Your task to perform on an android device: Go to Android settings Image 0: 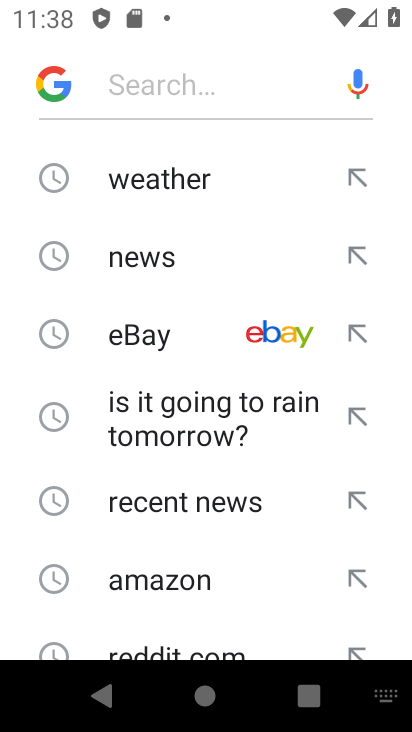
Step 0: press home button
Your task to perform on an android device: Go to Android settings Image 1: 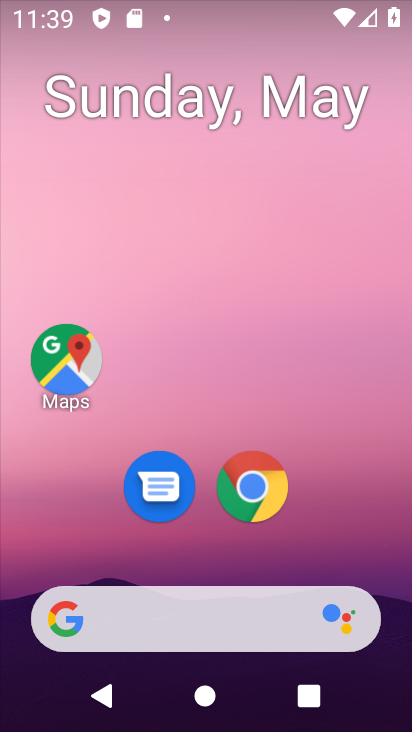
Step 1: drag from (345, 532) to (410, 257)
Your task to perform on an android device: Go to Android settings Image 2: 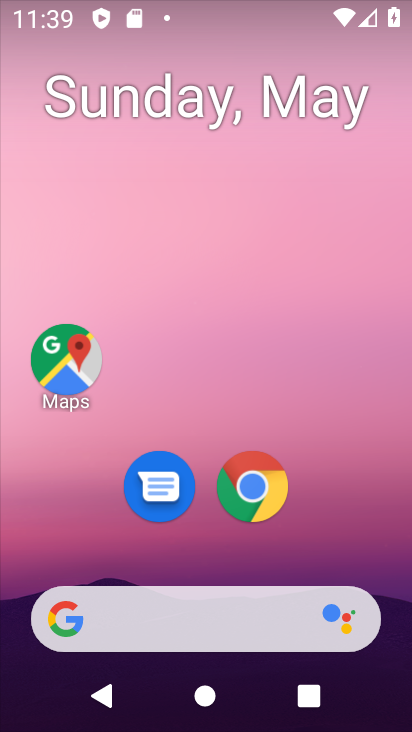
Step 2: drag from (342, 551) to (411, 183)
Your task to perform on an android device: Go to Android settings Image 3: 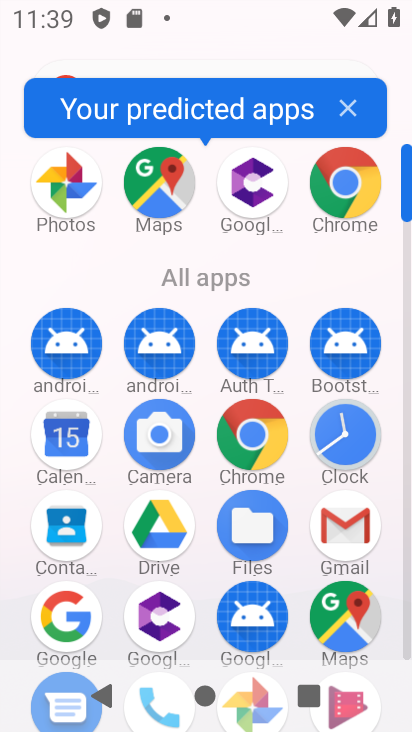
Step 3: drag from (290, 547) to (401, 238)
Your task to perform on an android device: Go to Android settings Image 4: 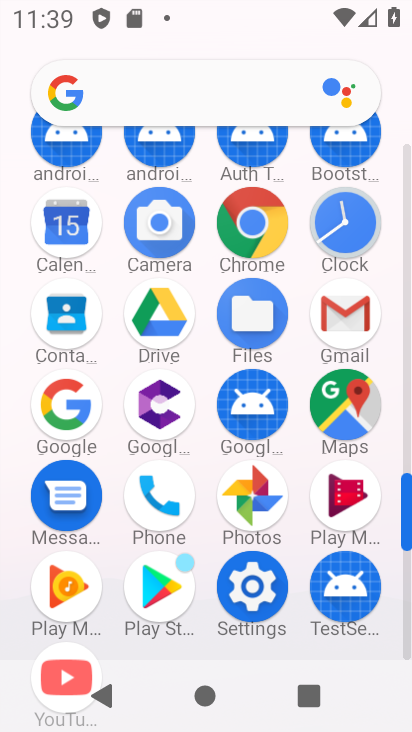
Step 4: click (244, 600)
Your task to perform on an android device: Go to Android settings Image 5: 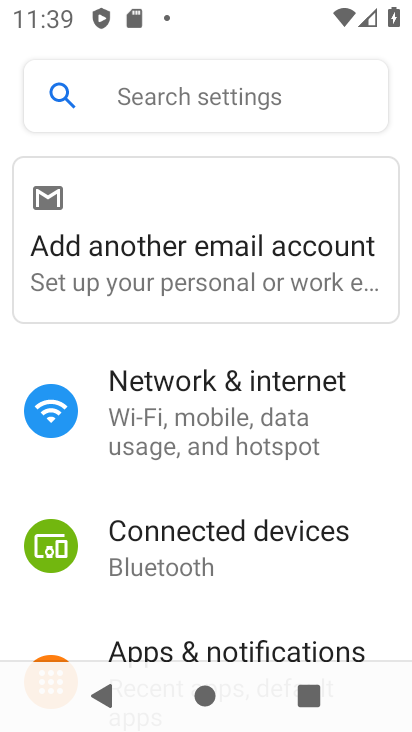
Step 5: task complete